Your task to perform on an android device: Open Reddit.com Image 0: 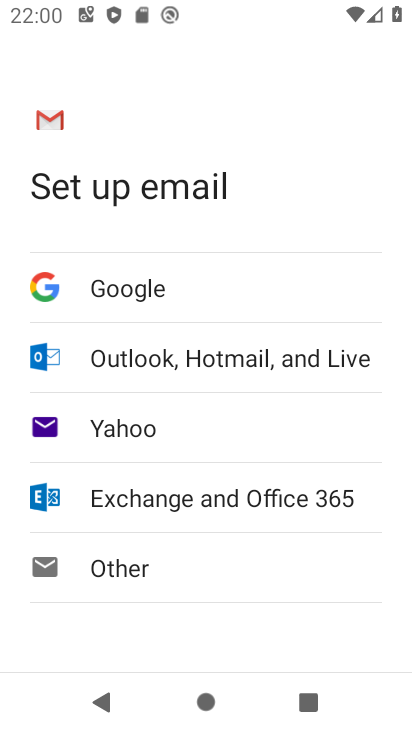
Step 0: press home button
Your task to perform on an android device: Open Reddit.com Image 1: 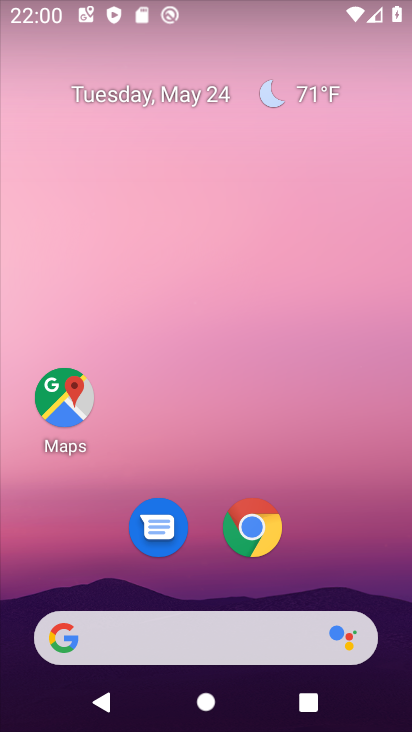
Step 1: click (262, 524)
Your task to perform on an android device: Open Reddit.com Image 2: 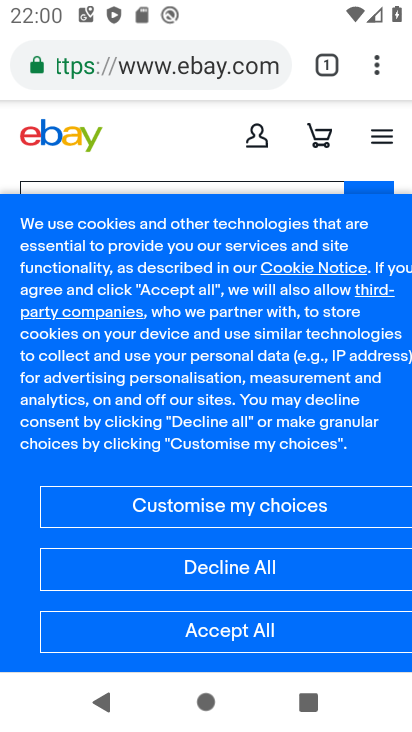
Step 2: click (187, 76)
Your task to perform on an android device: Open Reddit.com Image 3: 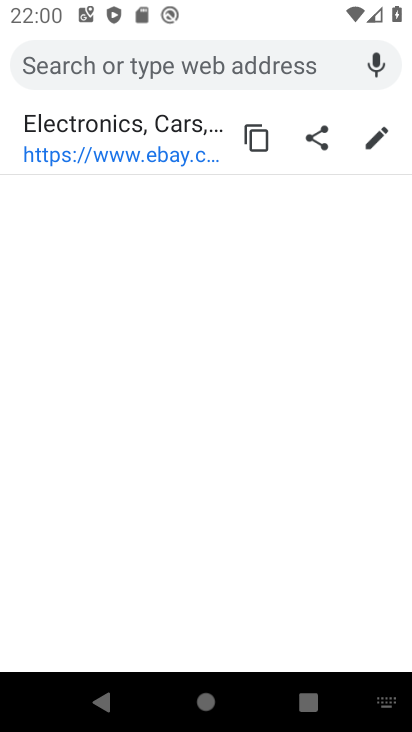
Step 3: type "reddit.com"
Your task to perform on an android device: Open Reddit.com Image 4: 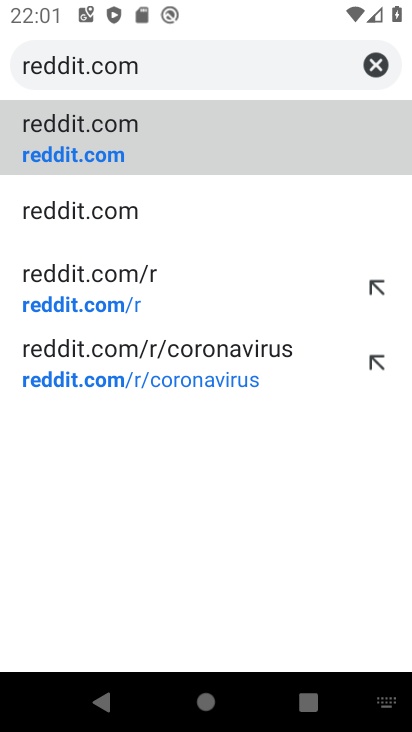
Step 4: click (79, 149)
Your task to perform on an android device: Open Reddit.com Image 5: 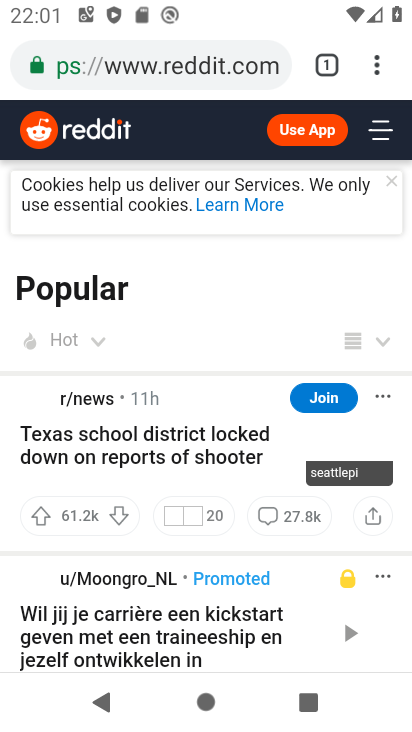
Step 5: task complete